Your task to perform on an android device: Open Chrome and go to the settings page Image 0: 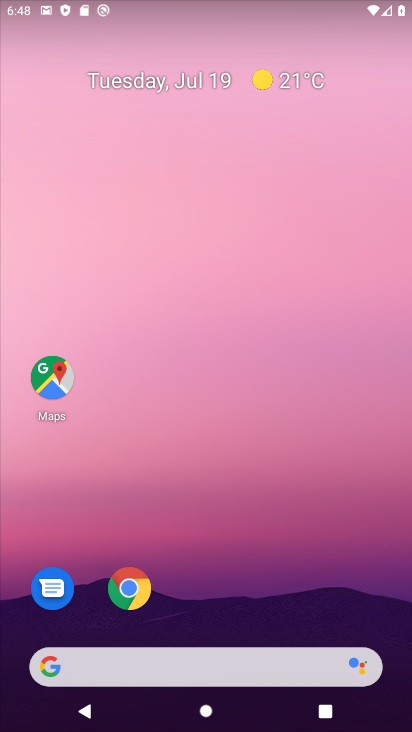
Step 0: drag from (252, 624) to (214, 247)
Your task to perform on an android device: Open Chrome and go to the settings page Image 1: 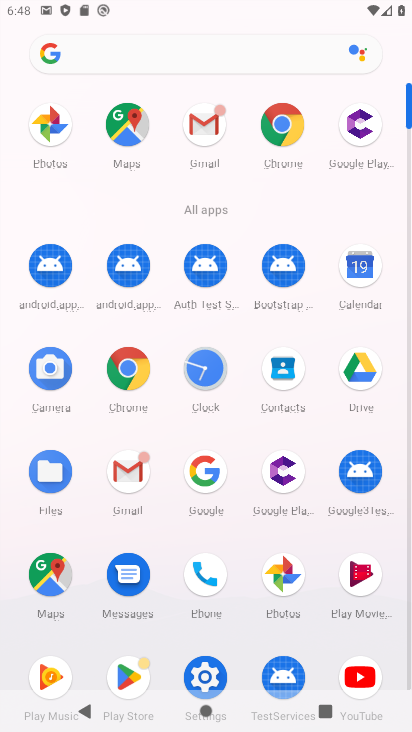
Step 1: click (131, 378)
Your task to perform on an android device: Open Chrome and go to the settings page Image 2: 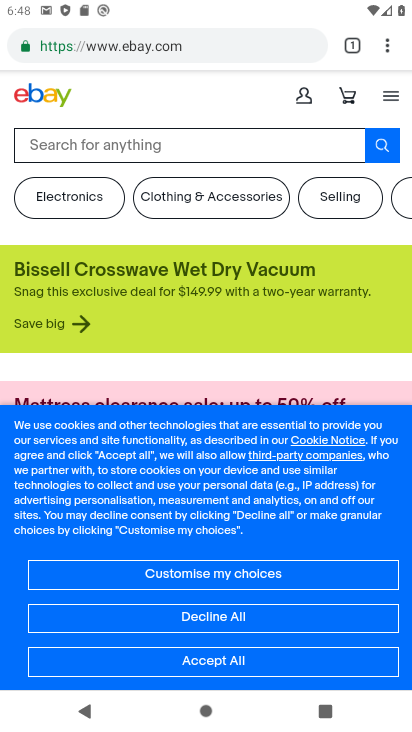
Step 2: click (390, 51)
Your task to perform on an android device: Open Chrome and go to the settings page Image 3: 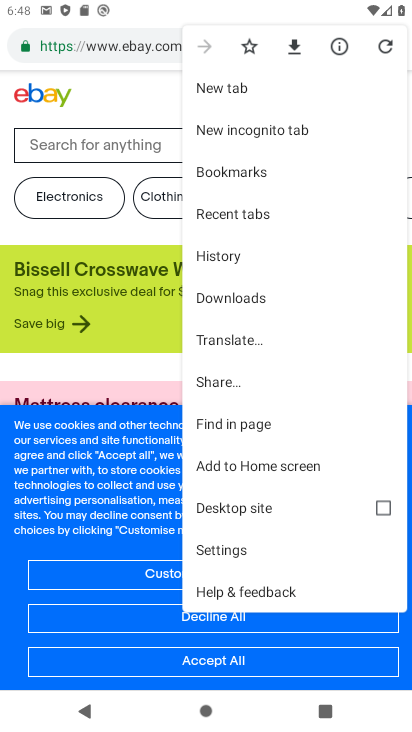
Step 3: click (274, 553)
Your task to perform on an android device: Open Chrome and go to the settings page Image 4: 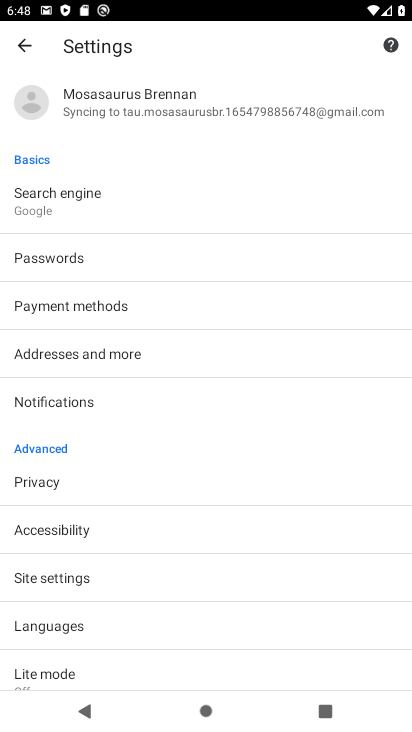
Step 4: task complete